Your task to perform on an android device: Open network settings Image 0: 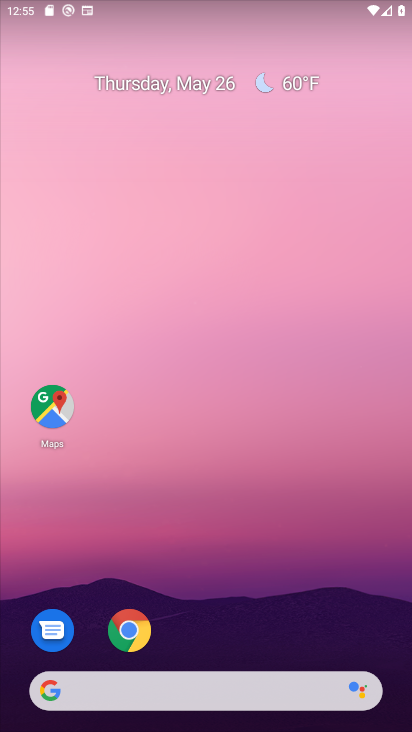
Step 0: drag from (232, 566) to (191, 98)
Your task to perform on an android device: Open network settings Image 1: 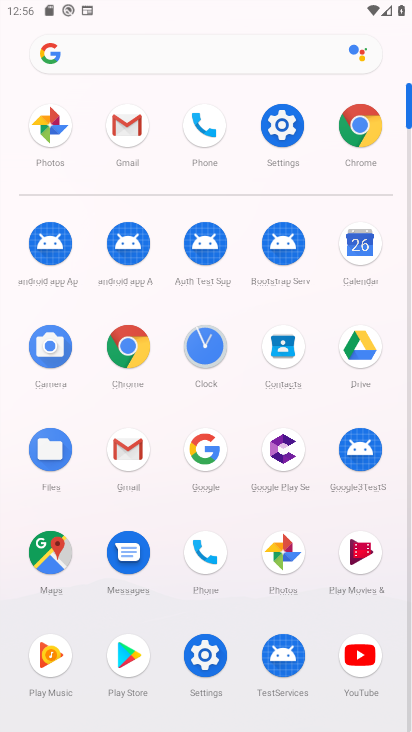
Step 1: click (288, 116)
Your task to perform on an android device: Open network settings Image 2: 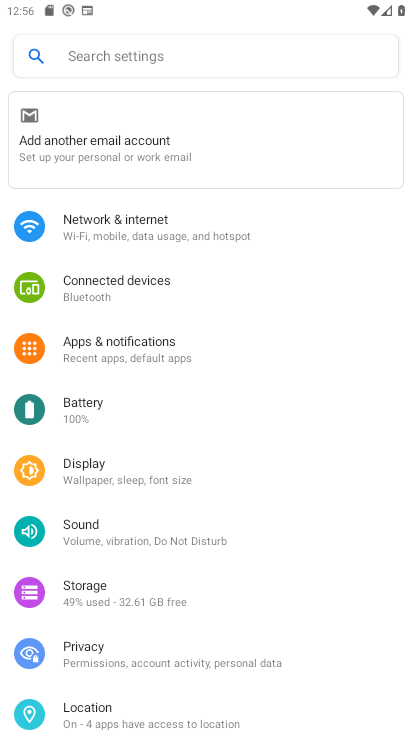
Step 2: click (111, 230)
Your task to perform on an android device: Open network settings Image 3: 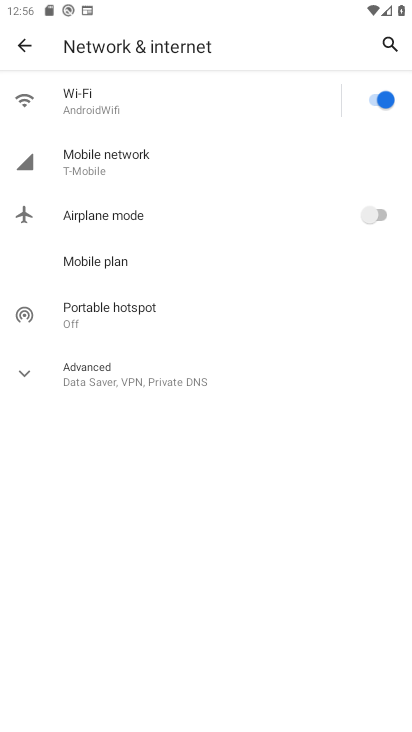
Step 3: task complete